Your task to perform on an android device: Open ESPN.com Image 0: 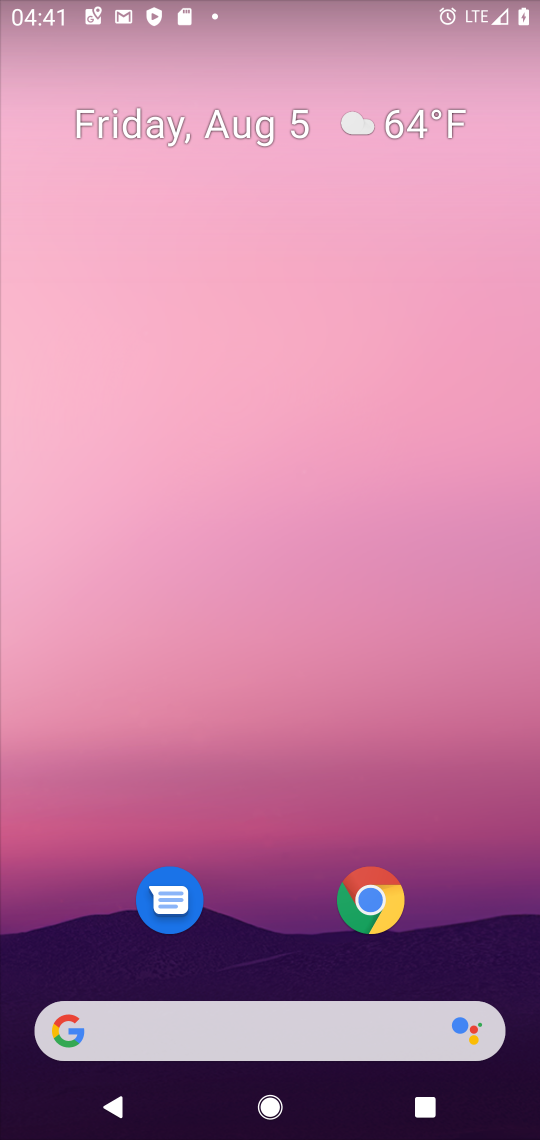
Step 0: click (386, 882)
Your task to perform on an android device: Open ESPN.com Image 1: 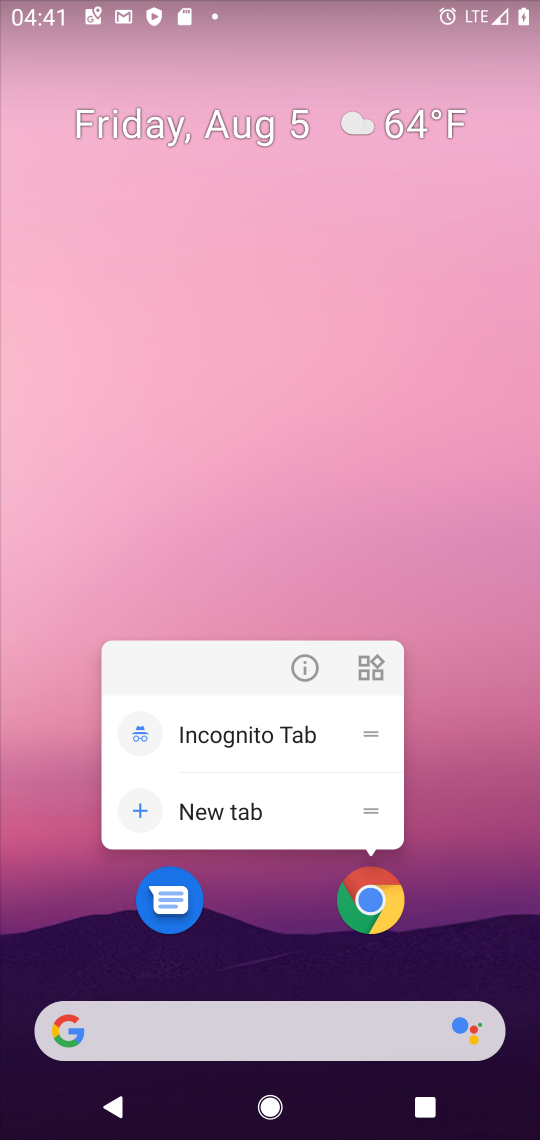
Step 1: click (370, 902)
Your task to perform on an android device: Open ESPN.com Image 2: 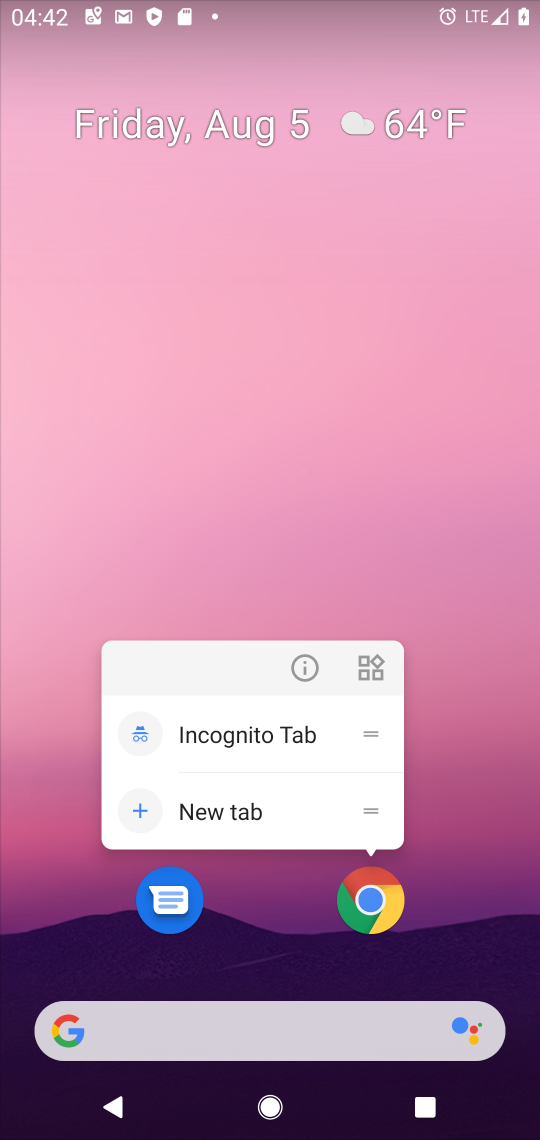
Step 2: click (366, 917)
Your task to perform on an android device: Open ESPN.com Image 3: 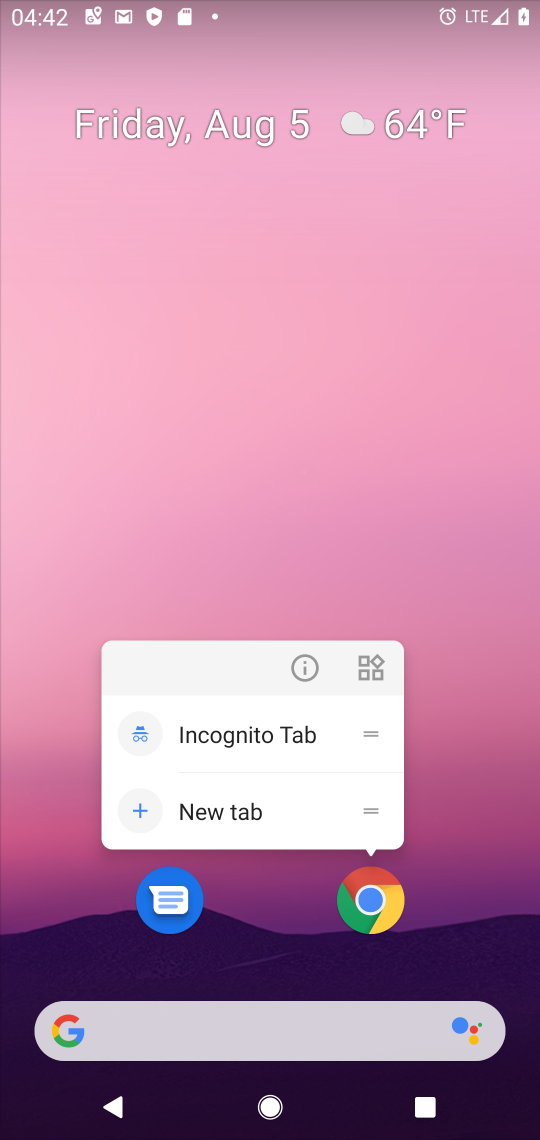
Step 3: click (346, 888)
Your task to perform on an android device: Open ESPN.com Image 4: 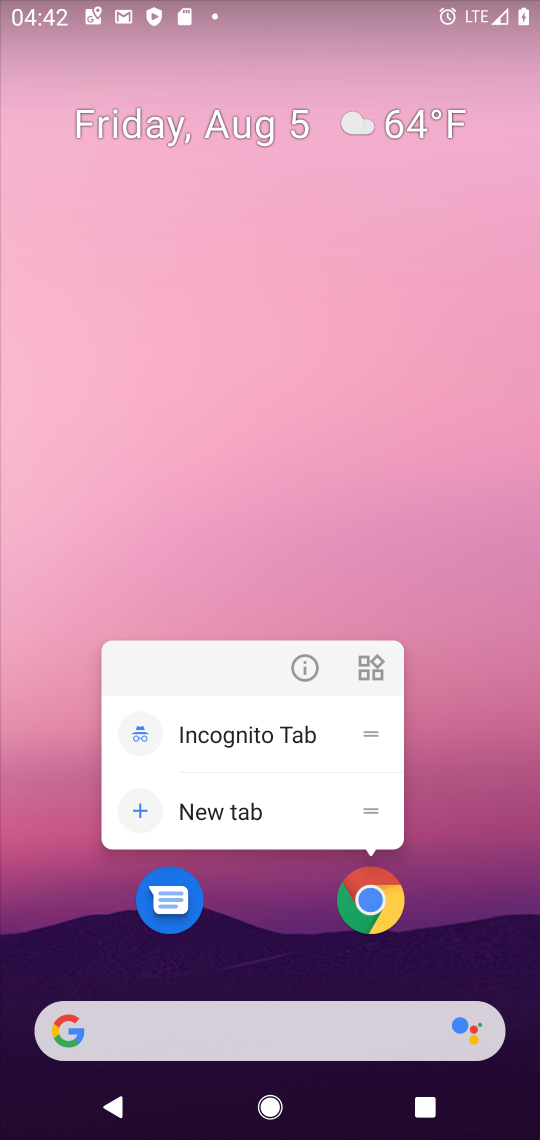
Step 4: click (388, 895)
Your task to perform on an android device: Open ESPN.com Image 5: 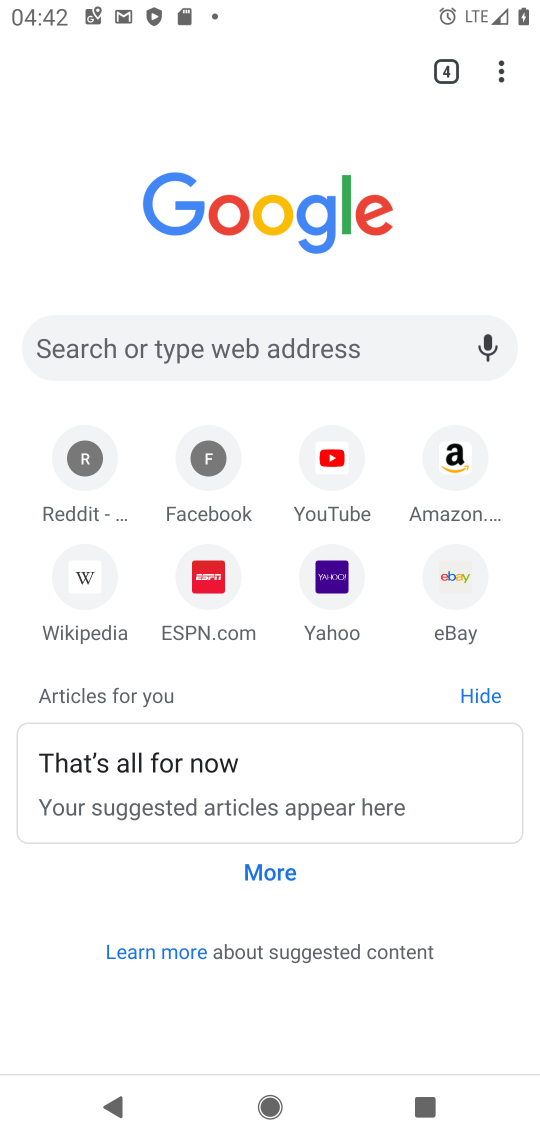
Step 5: click (223, 591)
Your task to perform on an android device: Open ESPN.com Image 6: 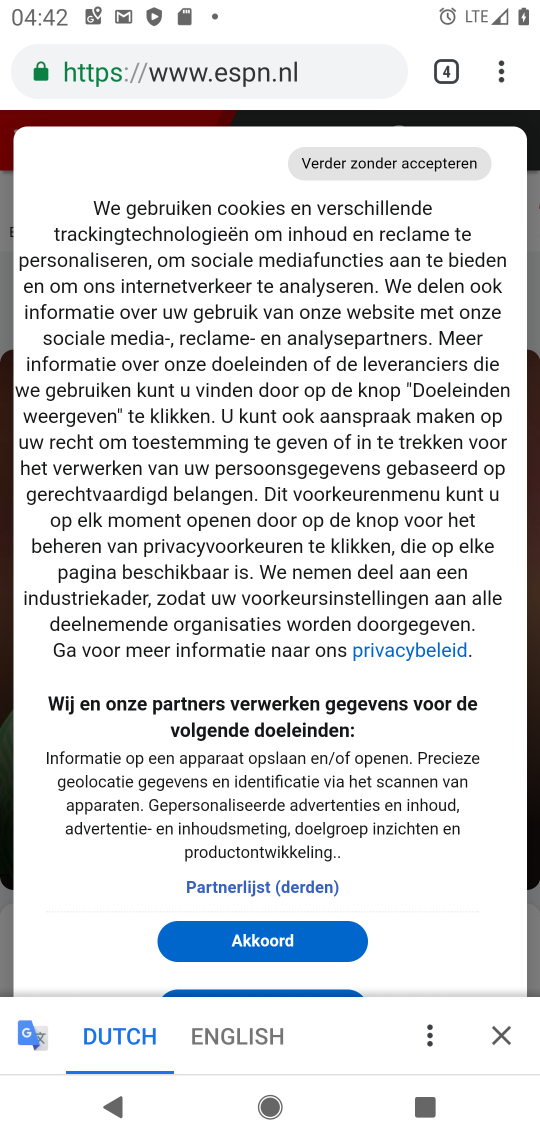
Step 6: task complete